Your task to perform on an android device: turn off wifi Image 0: 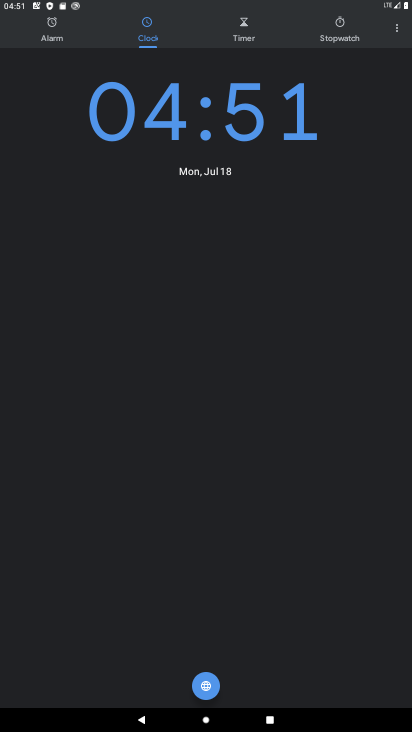
Step 0: drag from (108, 13) to (137, 643)
Your task to perform on an android device: turn off wifi Image 1: 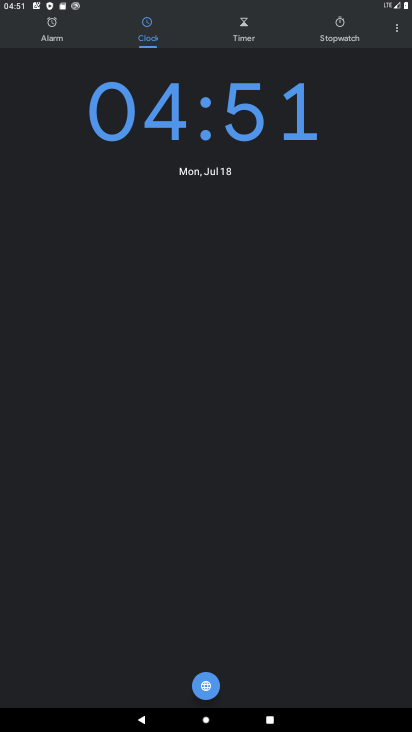
Step 1: task complete